Your task to perform on an android device: Open Yahoo.com Image 0: 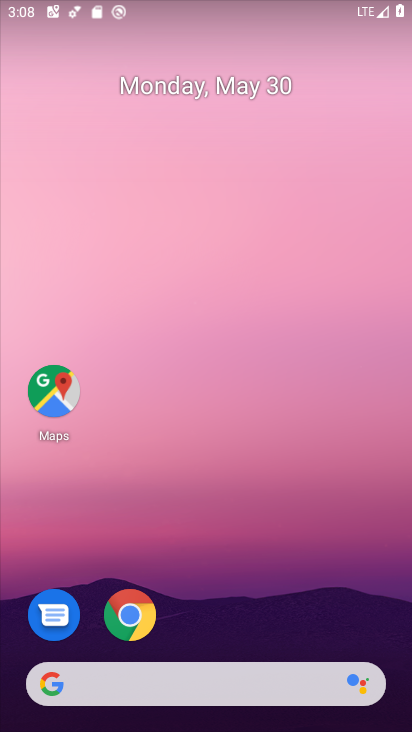
Step 0: click (234, 690)
Your task to perform on an android device: Open Yahoo.com Image 1: 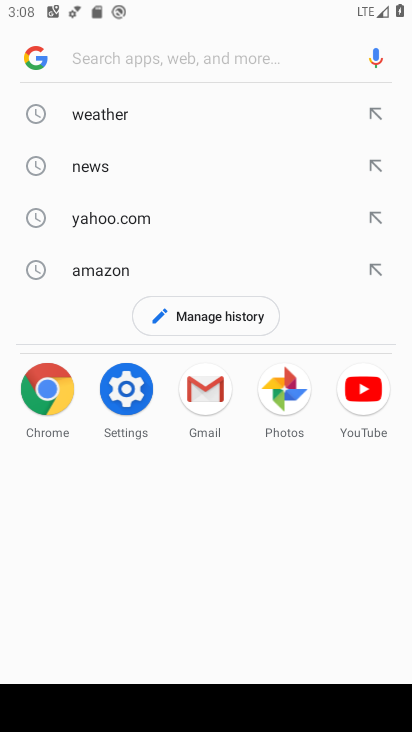
Step 1: click (121, 210)
Your task to perform on an android device: Open Yahoo.com Image 2: 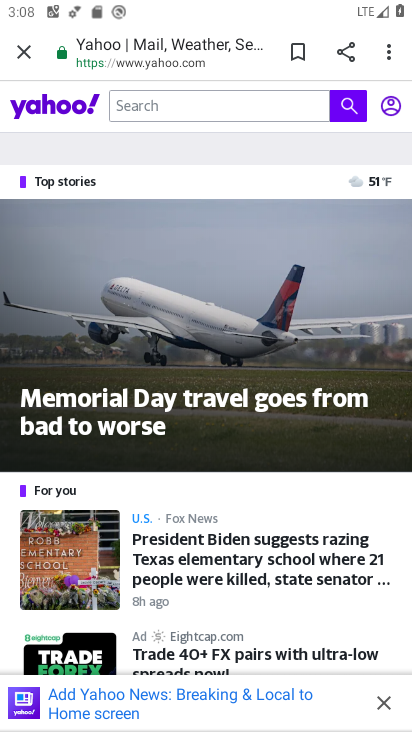
Step 2: task complete